Your task to perform on an android device: set default search engine in the chrome app Image 0: 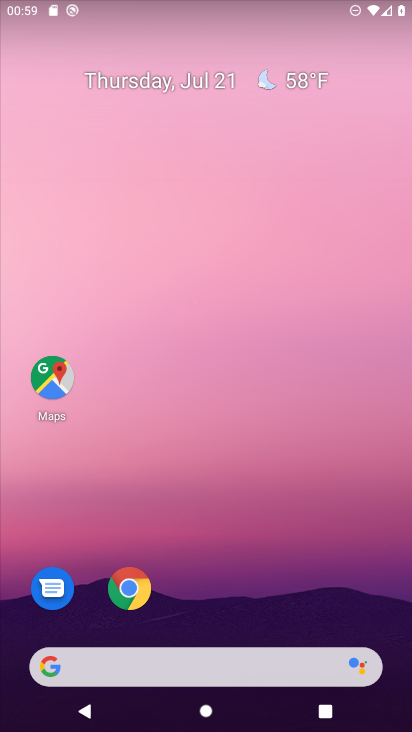
Step 0: click (132, 588)
Your task to perform on an android device: set default search engine in the chrome app Image 1: 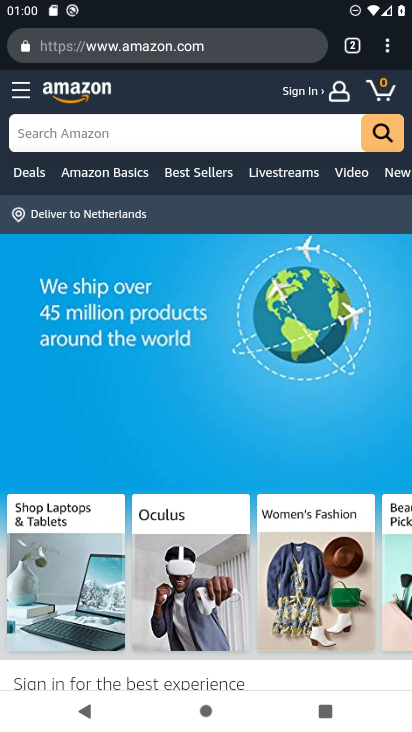
Step 1: click (386, 45)
Your task to perform on an android device: set default search engine in the chrome app Image 2: 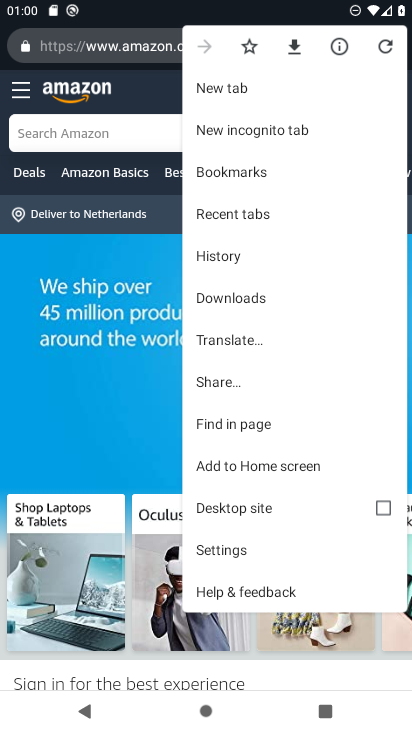
Step 2: click (222, 548)
Your task to perform on an android device: set default search engine in the chrome app Image 3: 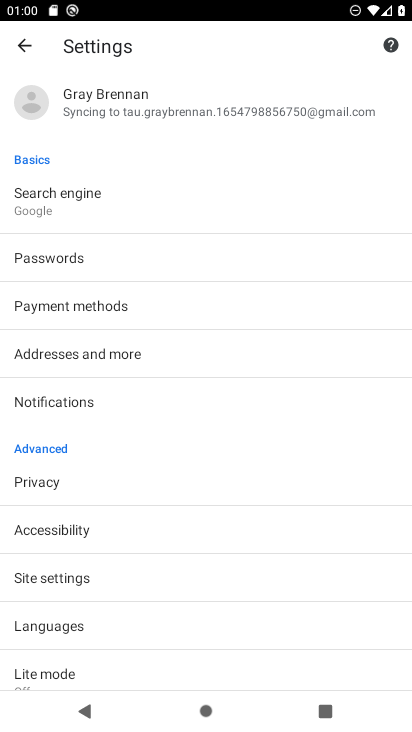
Step 3: click (90, 204)
Your task to perform on an android device: set default search engine in the chrome app Image 4: 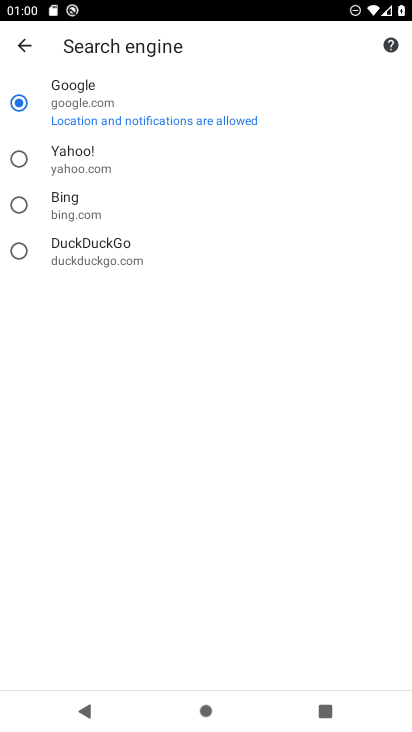
Step 4: task complete